Your task to perform on an android device: turn on data saver in the chrome app Image 0: 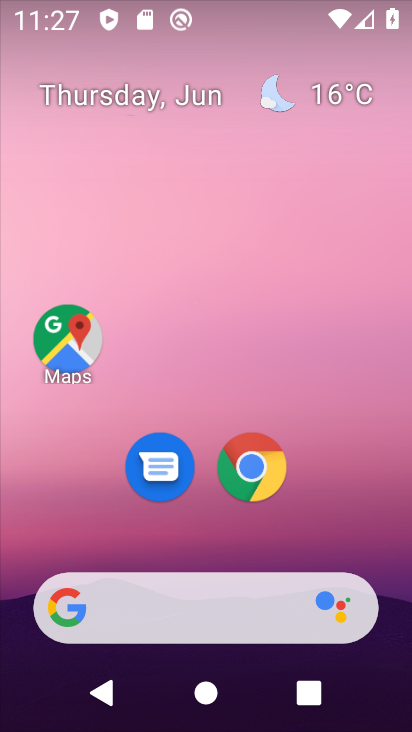
Step 0: click (254, 467)
Your task to perform on an android device: turn on data saver in the chrome app Image 1: 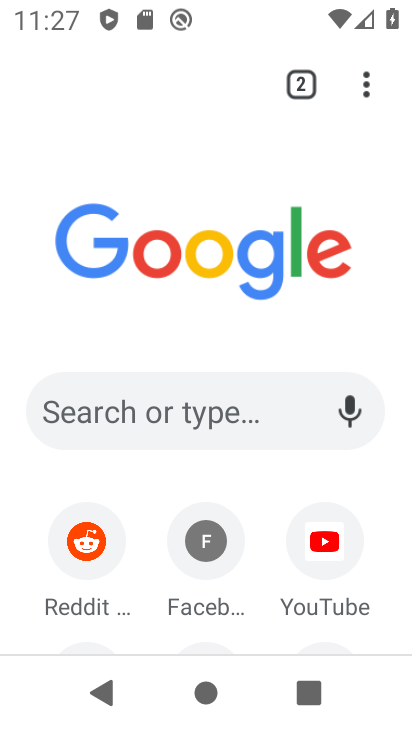
Step 1: click (370, 93)
Your task to perform on an android device: turn on data saver in the chrome app Image 2: 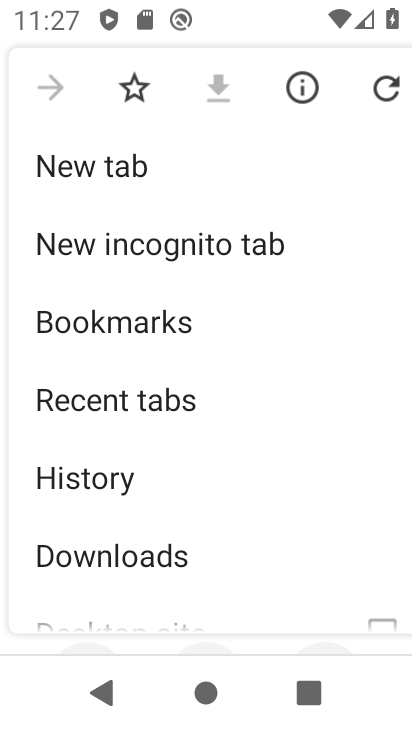
Step 2: drag from (237, 580) to (283, 96)
Your task to perform on an android device: turn on data saver in the chrome app Image 3: 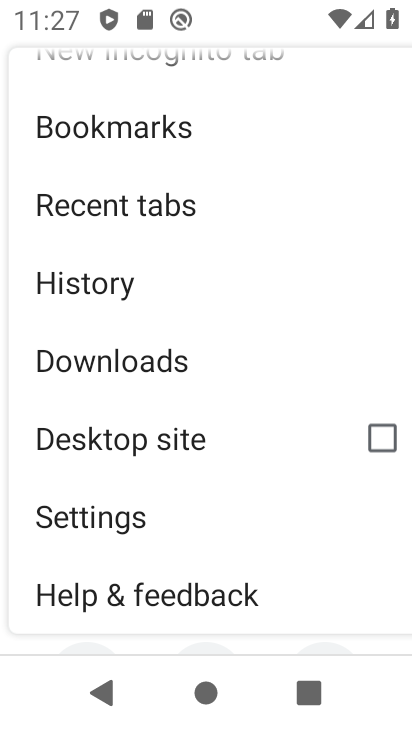
Step 3: click (100, 517)
Your task to perform on an android device: turn on data saver in the chrome app Image 4: 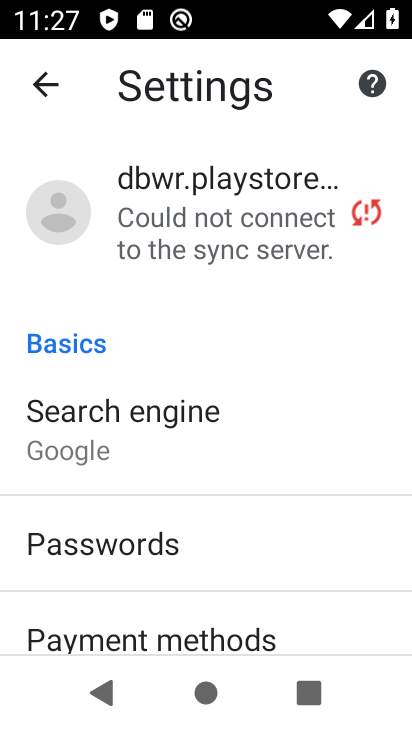
Step 4: drag from (248, 643) to (252, 194)
Your task to perform on an android device: turn on data saver in the chrome app Image 5: 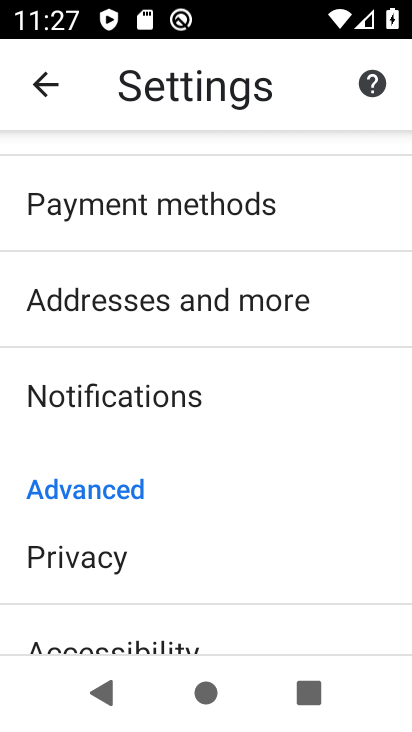
Step 5: drag from (219, 621) to (272, 125)
Your task to perform on an android device: turn on data saver in the chrome app Image 6: 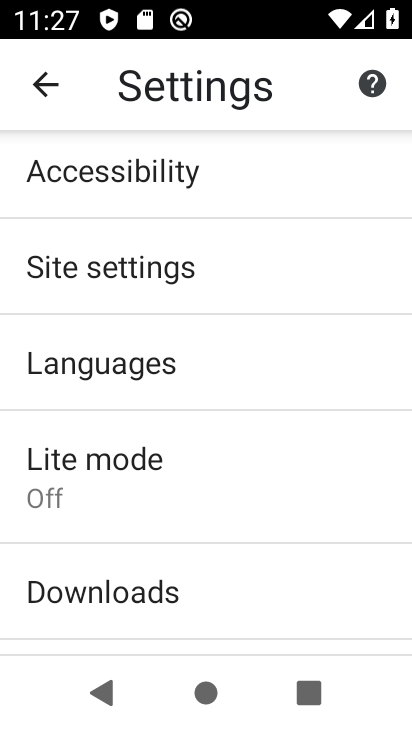
Step 6: click (94, 465)
Your task to perform on an android device: turn on data saver in the chrome app Image 7: 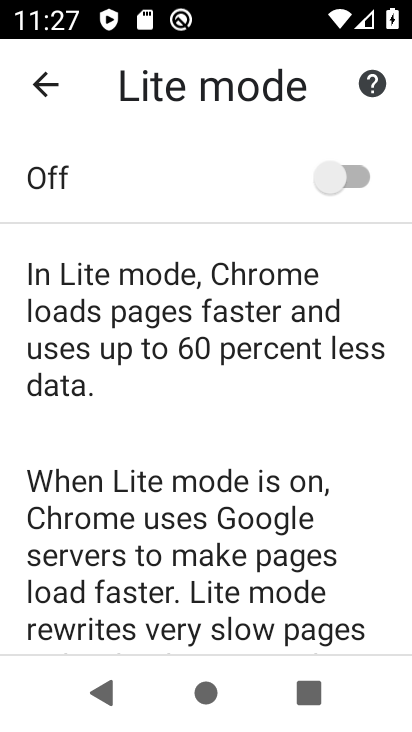
Step 7: click (358, 179)
Your task to perform on an android device: turn on data saver in the chrome app Image 8: 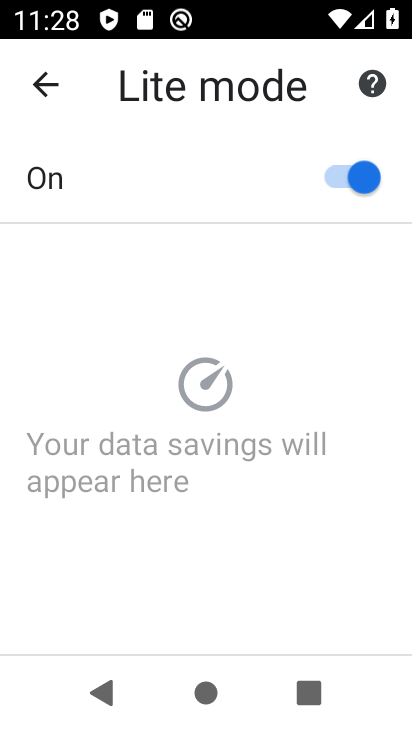
Step 8: task complete